Your task to perform on an android device: Open calendar and show me the second week of next month Image 0: 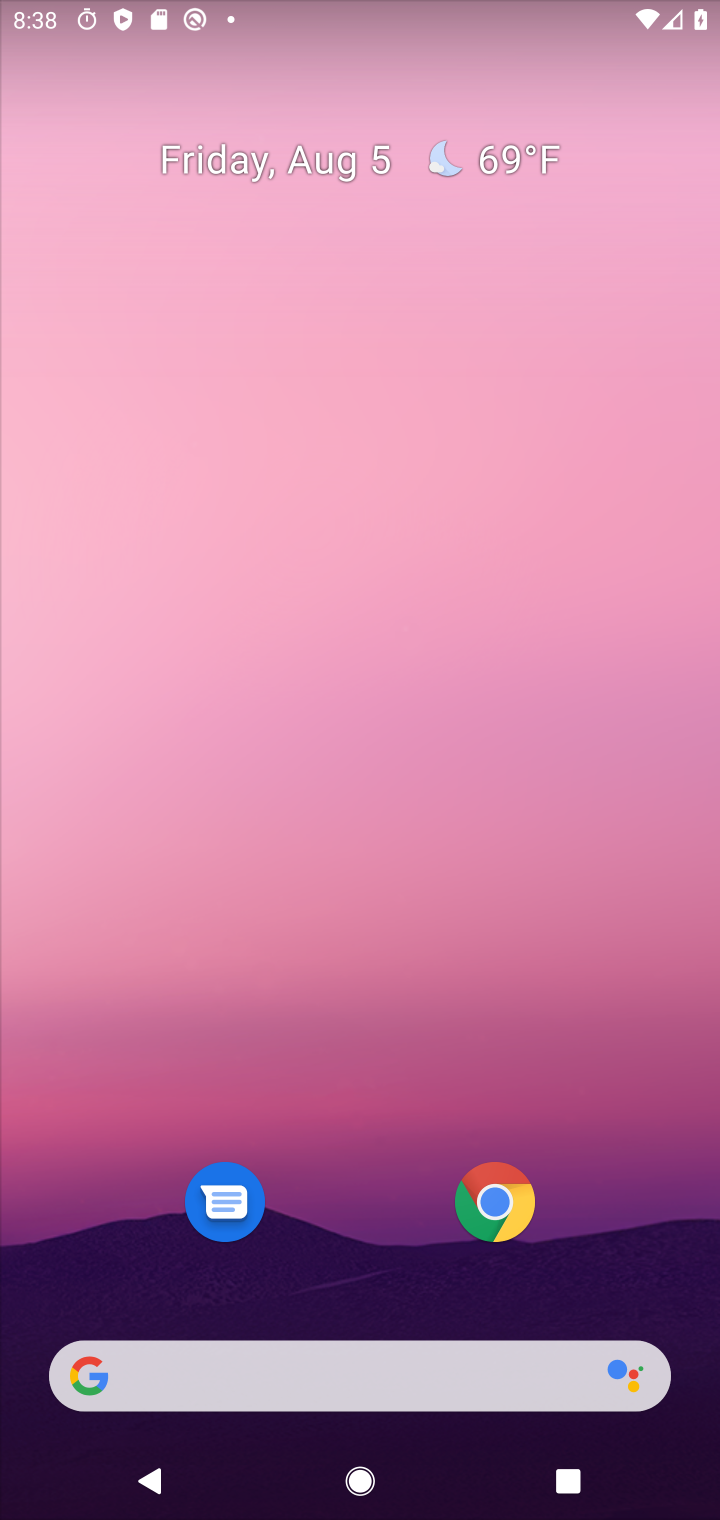
Step 0: drag from (317, 1185) to (412, 251)
Your task to perform on an android device: Open calendar and show me the second week of next month Image 1: 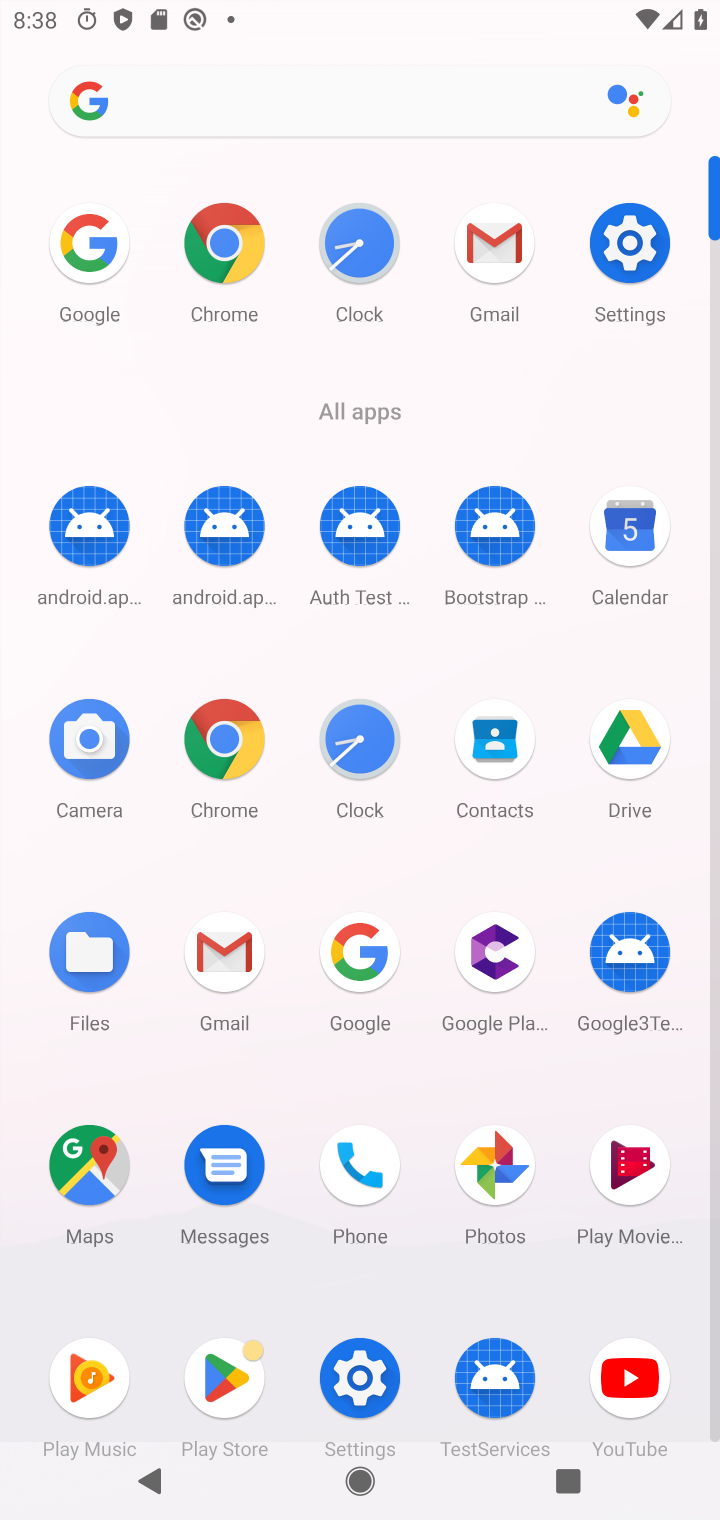
Step 1: click (635, 525)
Your task to perform on an android device: Open calendar and show me the second week of next month Image 2: 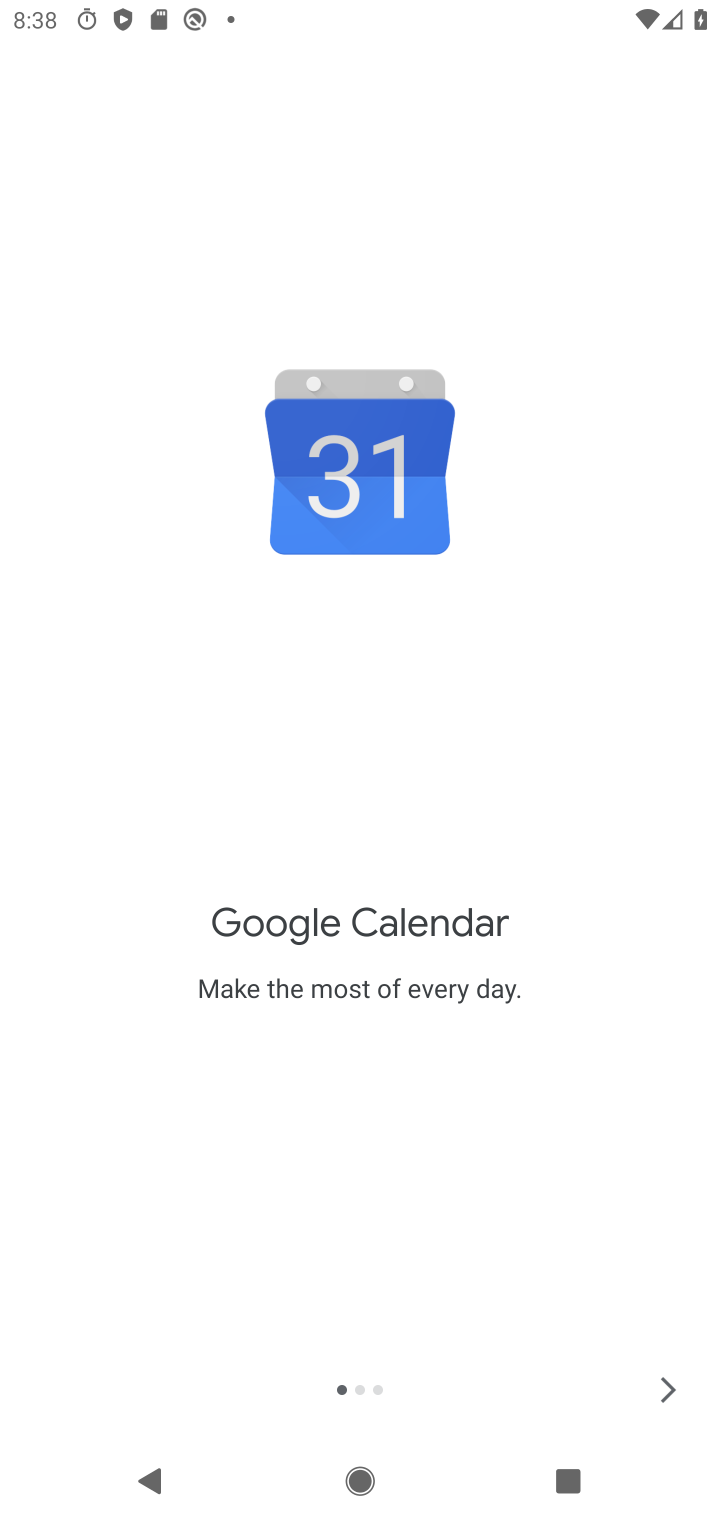
Step 2: click (649, 1402)
Your task to perform on an android device: Open calendar and show me the second week of next month Image 3: 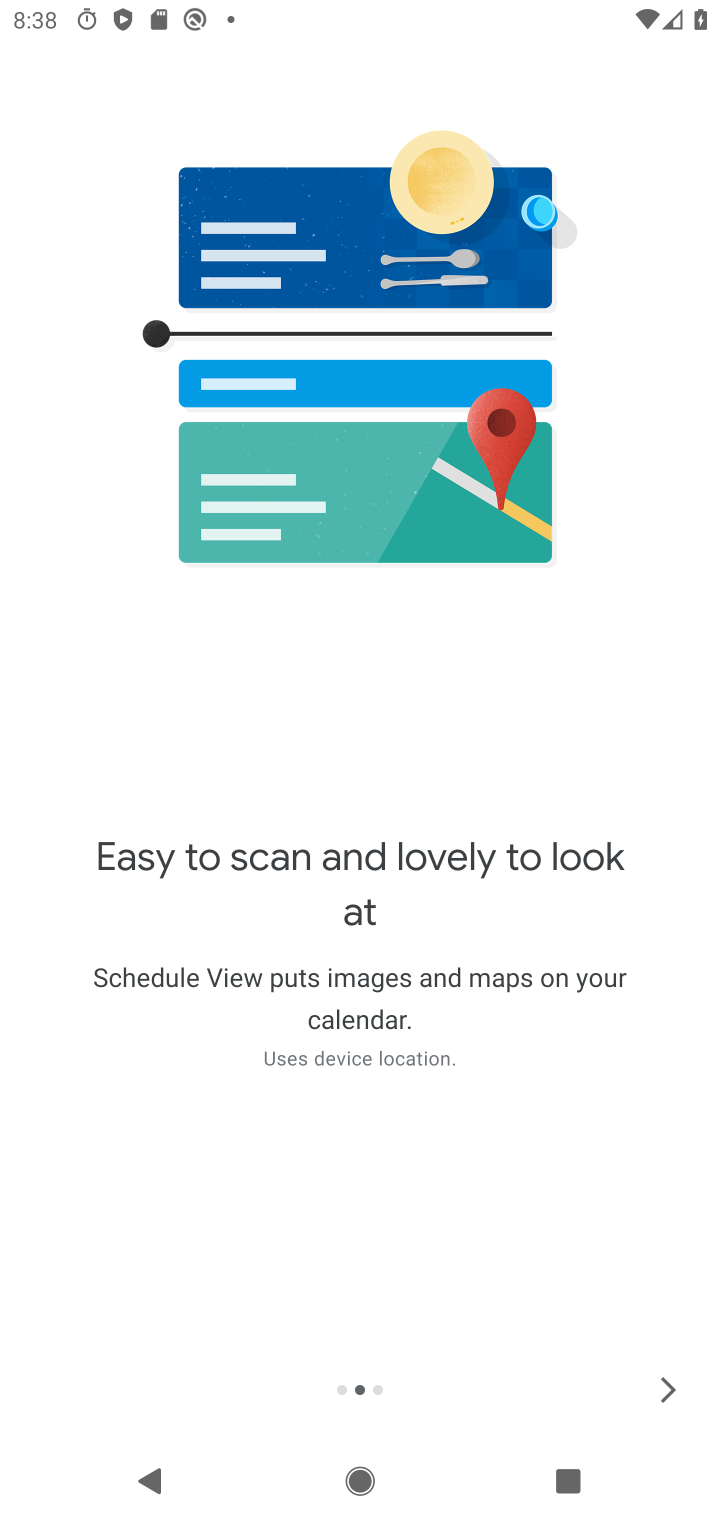
Step 3: click (649, 1402)
Your task to perform on an android device: Open calendar and show me the second week of next month Image 4: 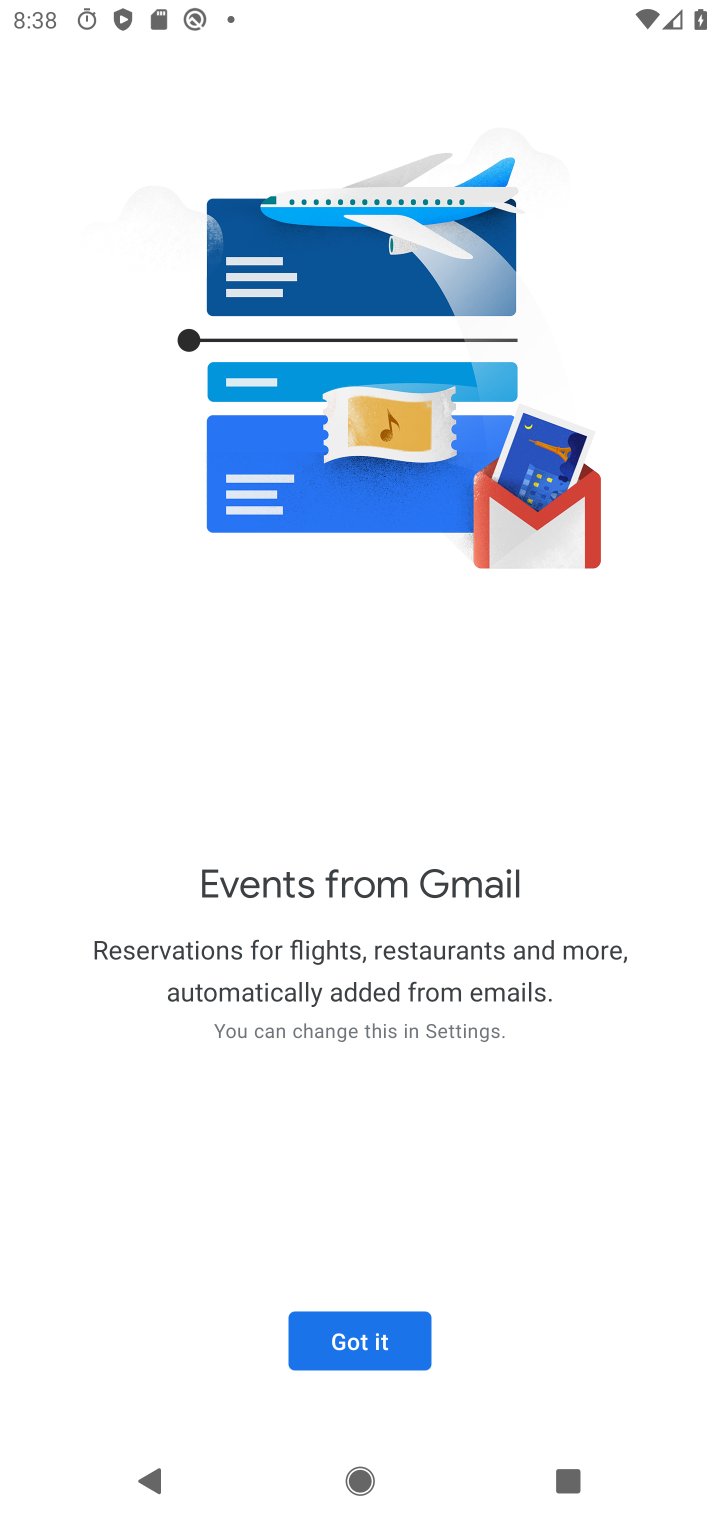
Step 4: click (374, 1312)
Your task to perform on an android device: Open calendar and show me the second week of next month Image 5: 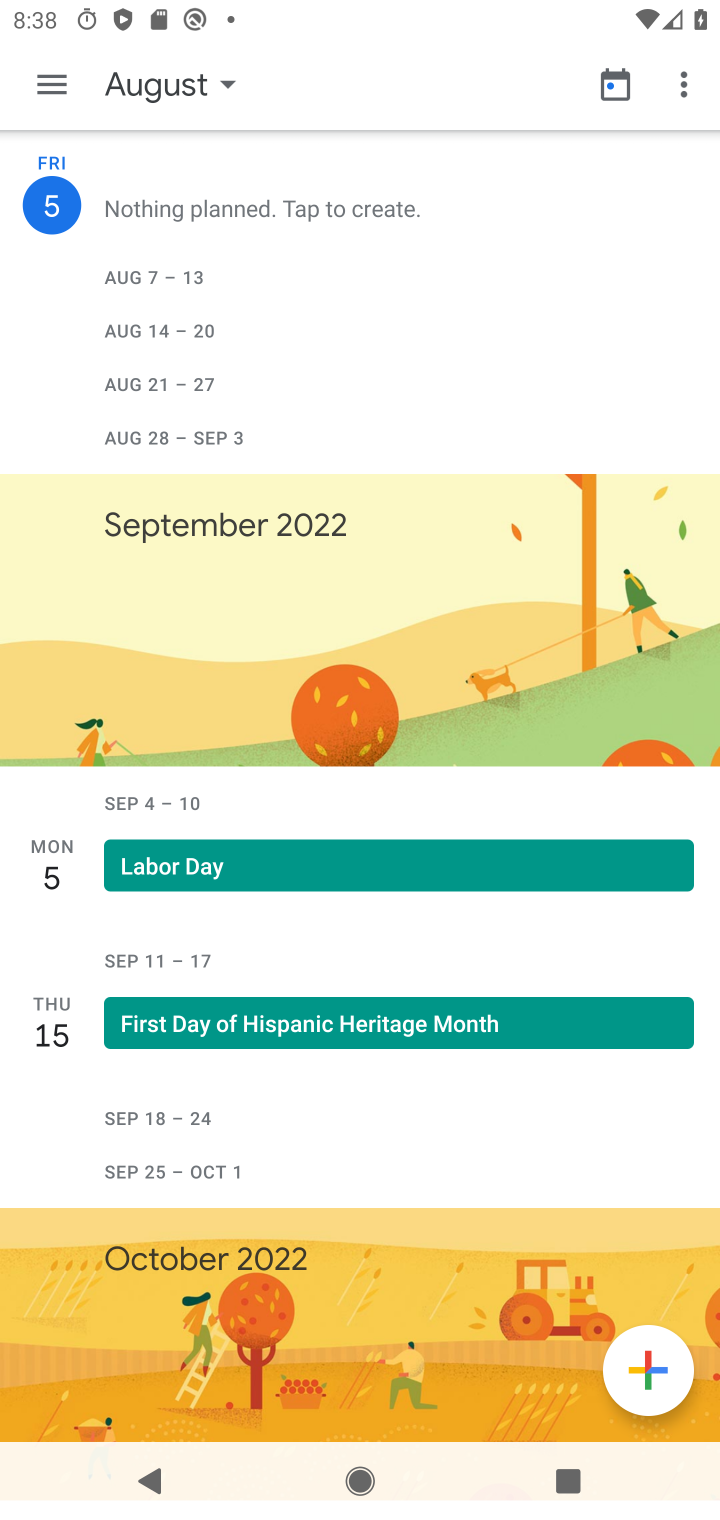
Step 5: click (156, 86)
Your task to perform on an android device: Open calendar and show me the second week of next month Image 6: 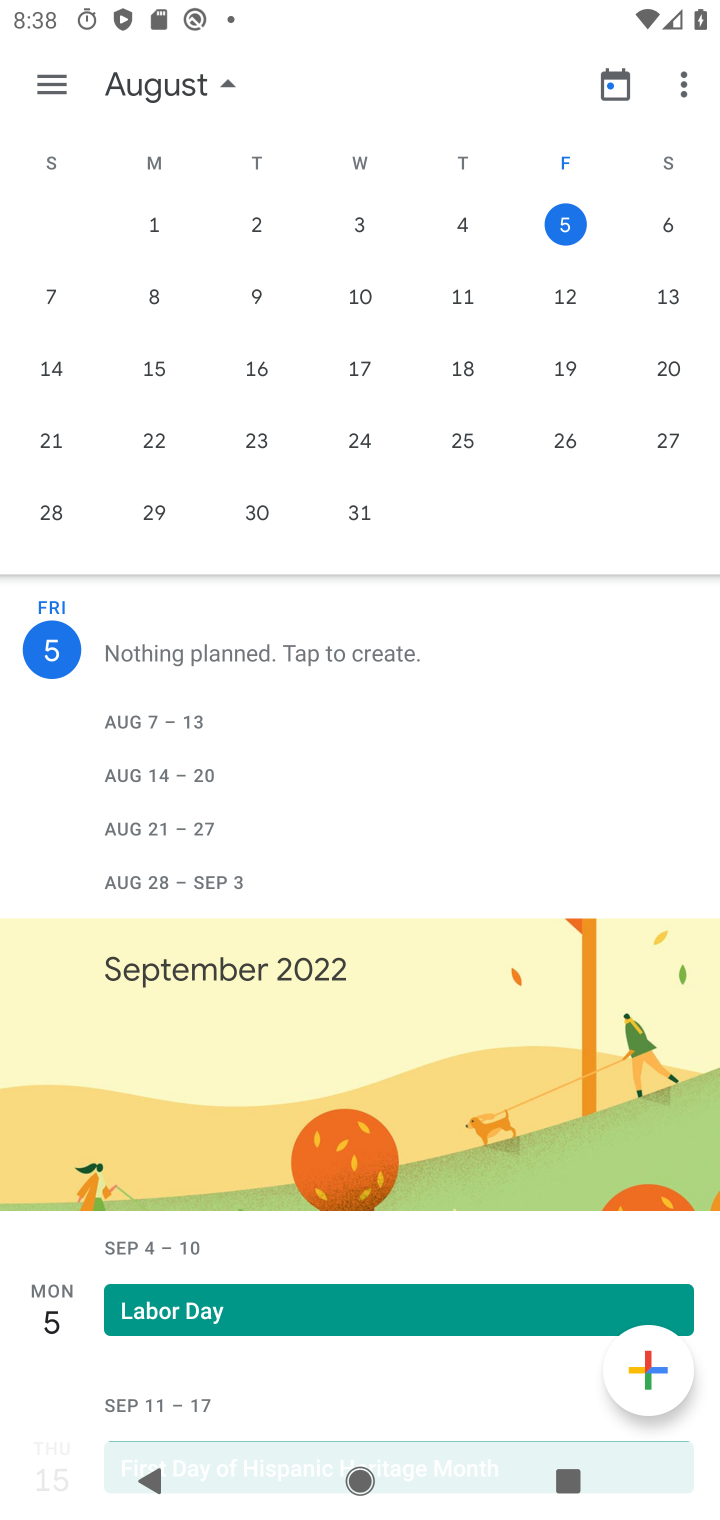
Step 6: drag from (693, 469) to (113, 389)
Your task to perform on an android device: Open calendar and show me the second week of next month Image 7: 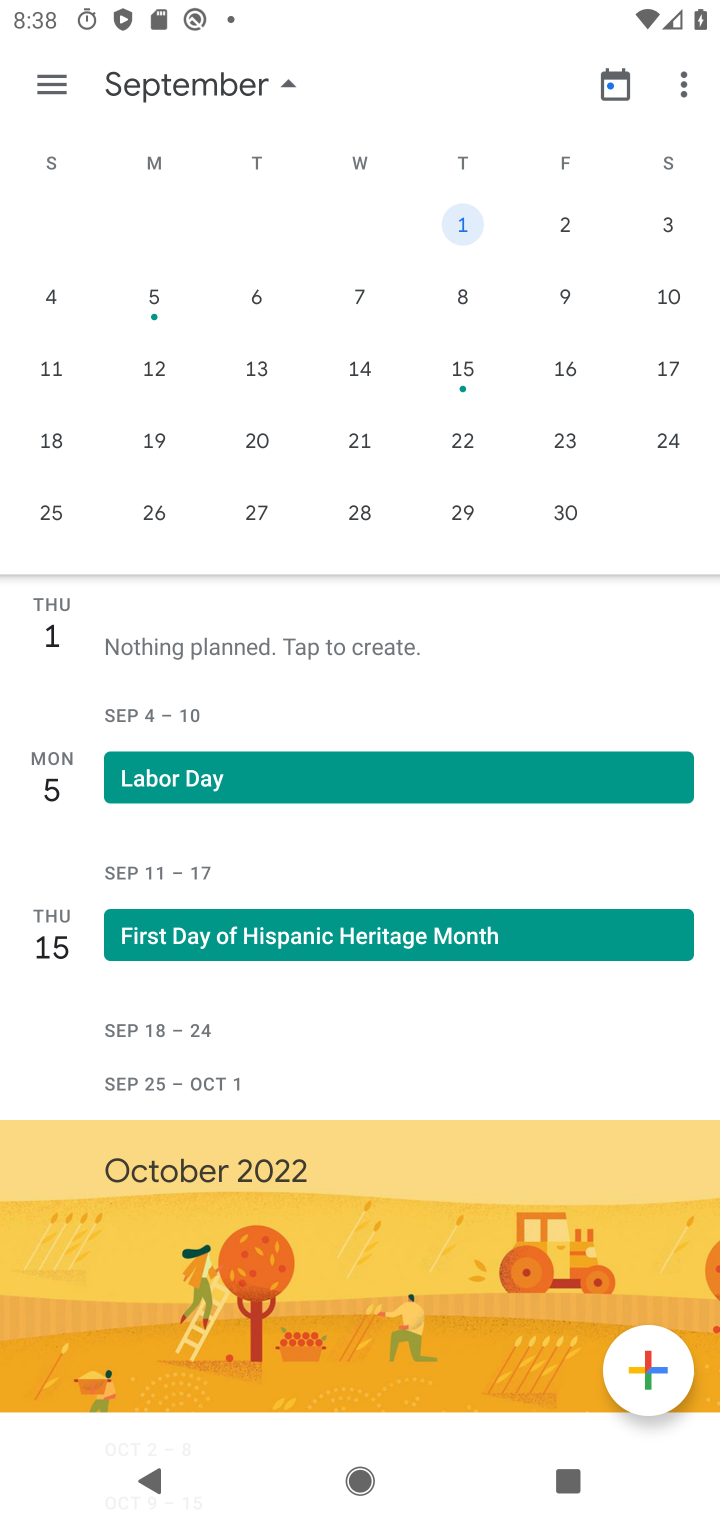
Step 7: click (52, 298)
Your task to perform on an android device: Open calendar and show me the second week of next month Image 8: 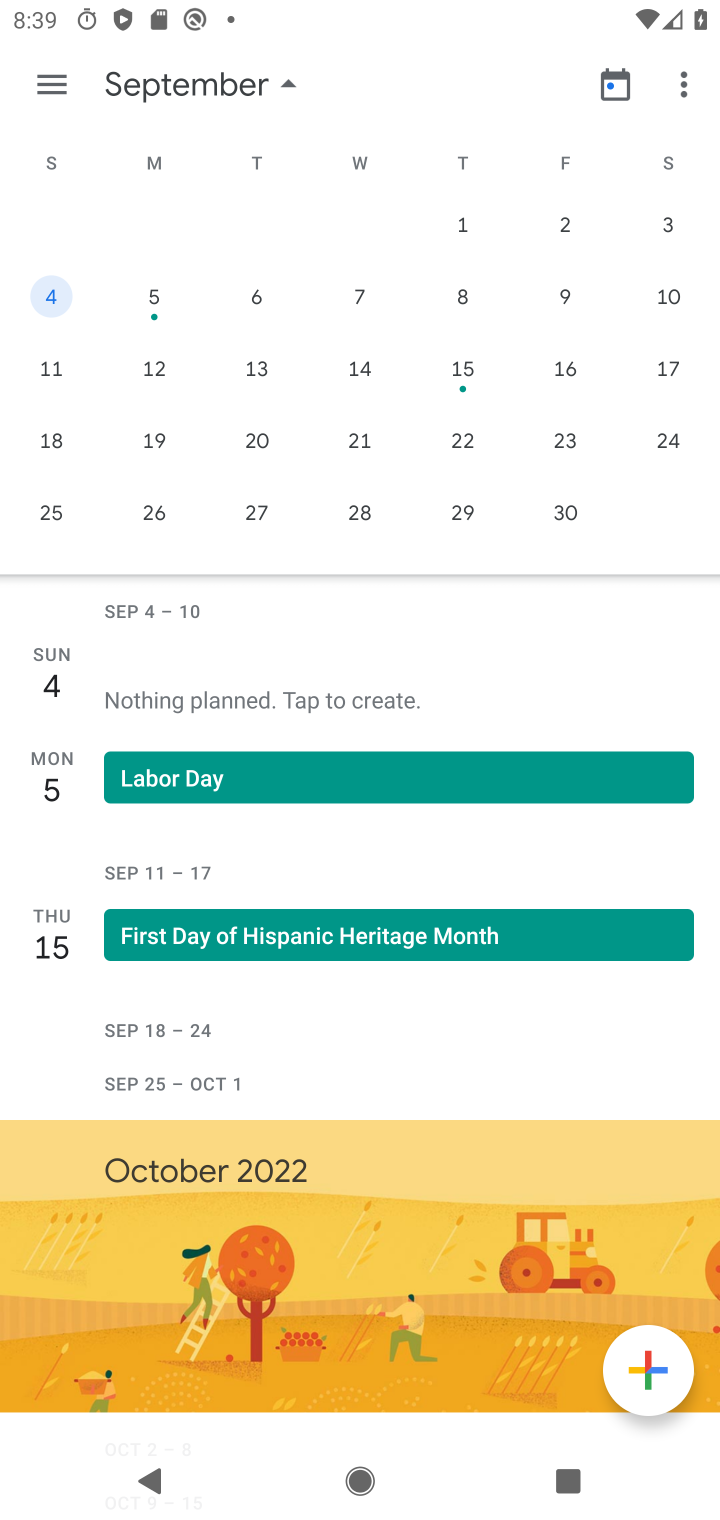
Step 8: task complete